Your task to perform on an android device: add a contact Image 0: 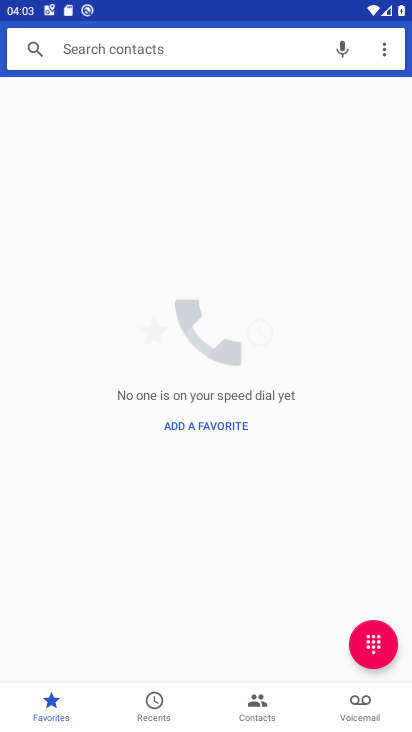
Step 0: click (251, 704)
Your task to perform on an android device: add a contact Image 1: 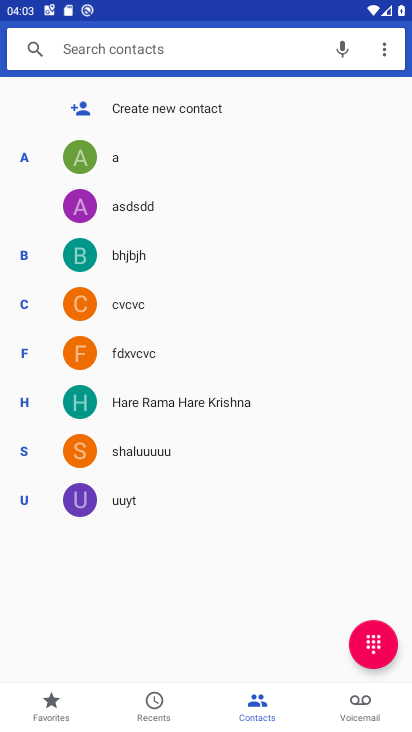
Step 1: click (167, 102)
Your task to perform on an android device: add a contact Image 2: 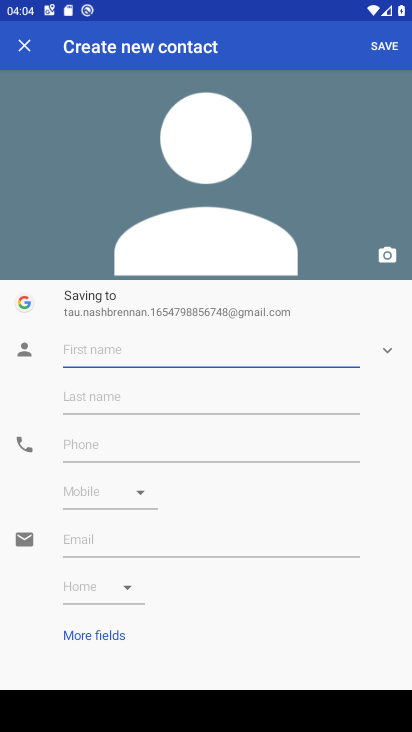
Step 2: type "shaloo"
Your task to perform on an android device: add a contact Image 3: 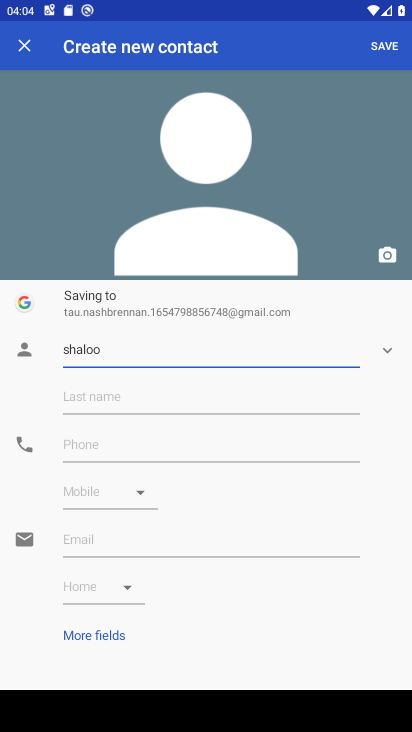
Step 3: click (89, 443)
Your task to perform on an android device: add a contact Image 4: 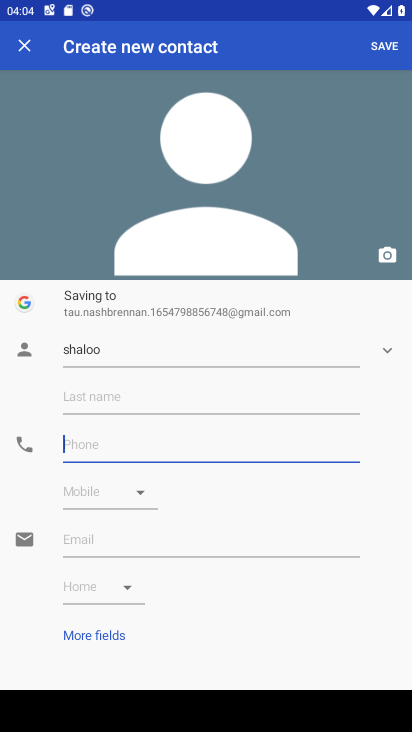
Step 4: type "89765432435676"
Your task to perform on an android device: add a contact Image 5: 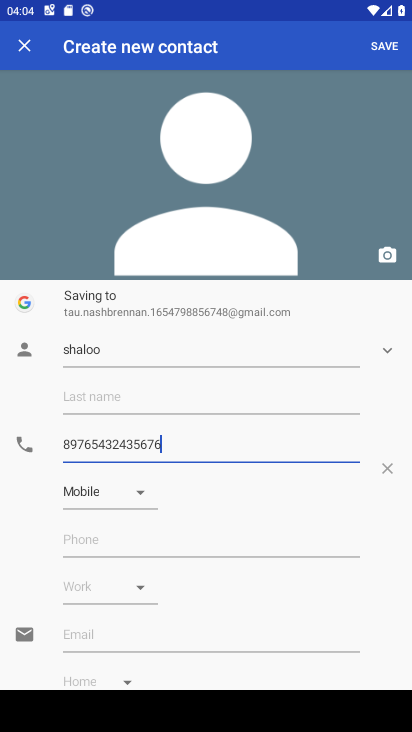
Step 5: click (367, 50)
Your task to perform on an android device: add a contact Image 6: 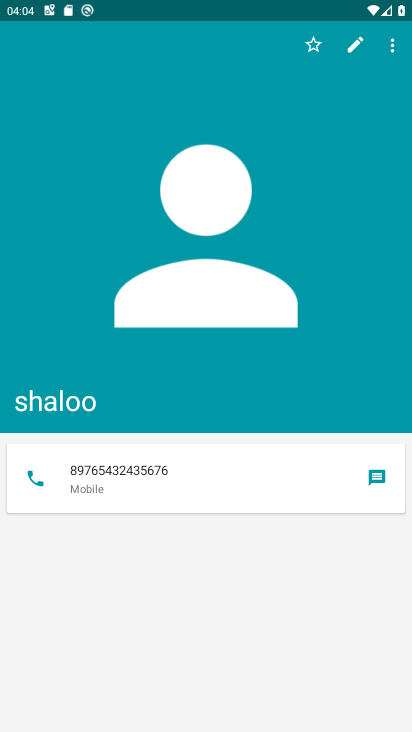
Step 6: task complete